Your task to perform on an android device: Open Google Chrome Image 0: 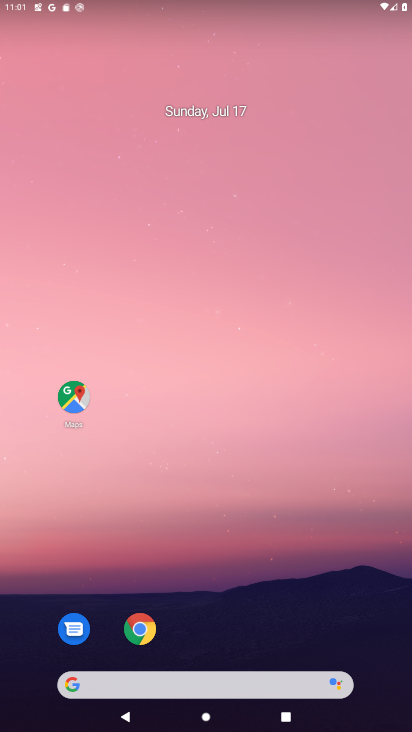
Step 0: click (140, 631)
Your task to perform on an android device: Open Google Chrome Image 1: 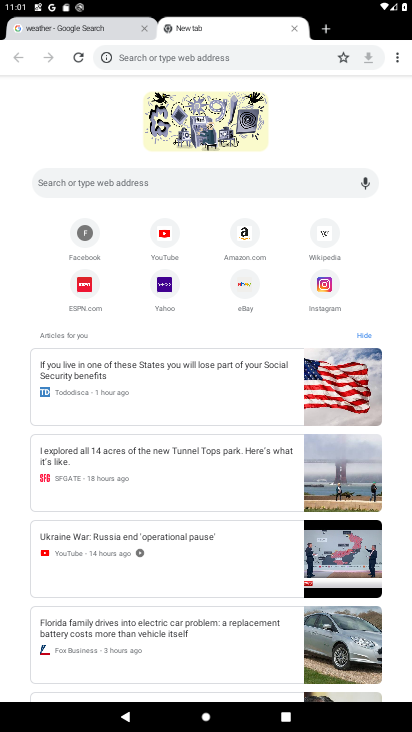
Step 1: task complete